Your task to perform on an android device: turn off notifications in google photos Image 0: 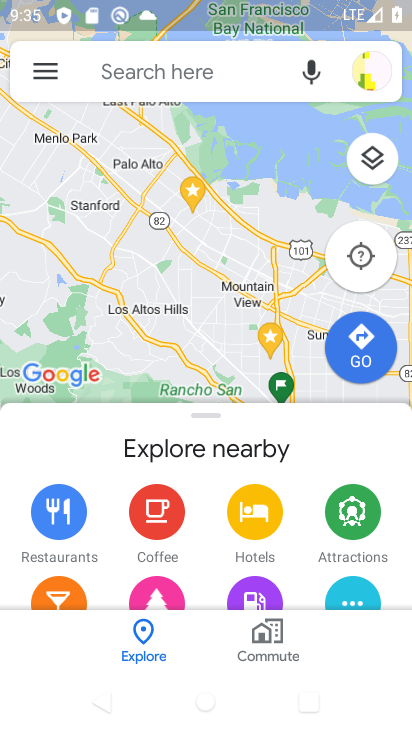
Step 0: press home button
Your task to perform on an android device: turn off notifications in google photos Image 1: 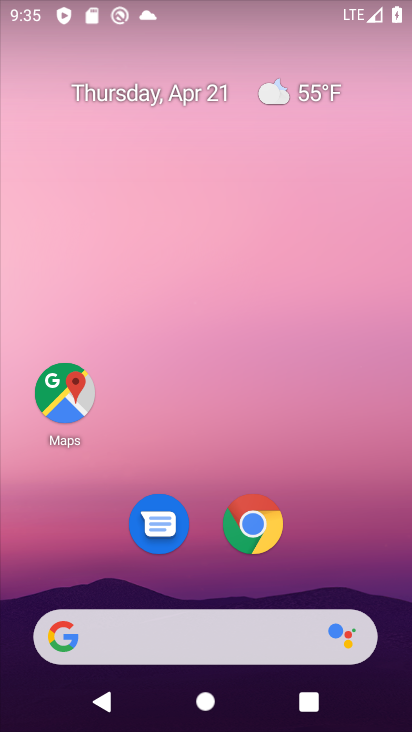
Step 1: drag from (341, 515) to (337, 106)
Your task to perform on an android device: turn off notifications in google photos Image 2: 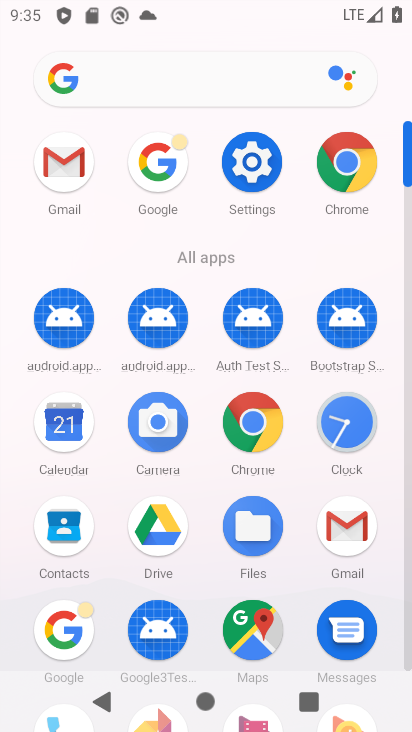
Step 2: click (253, 160)
Your task to perform on an android device: turn off notifications in google photos Image 3: 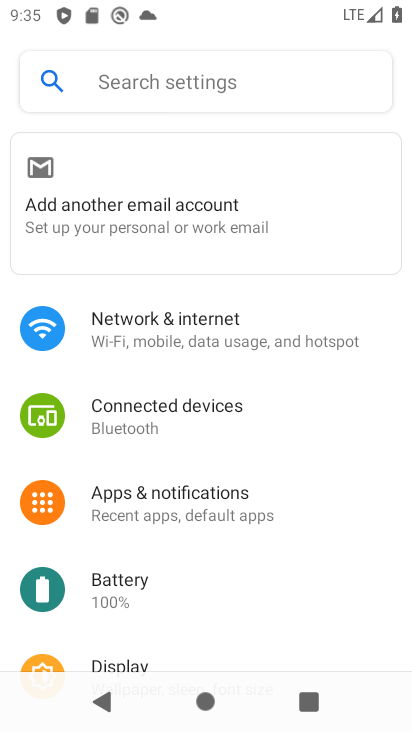
Step 3: click (222, 494)
Your task to perform on an android device: turn off notifications in google photos Image 4: 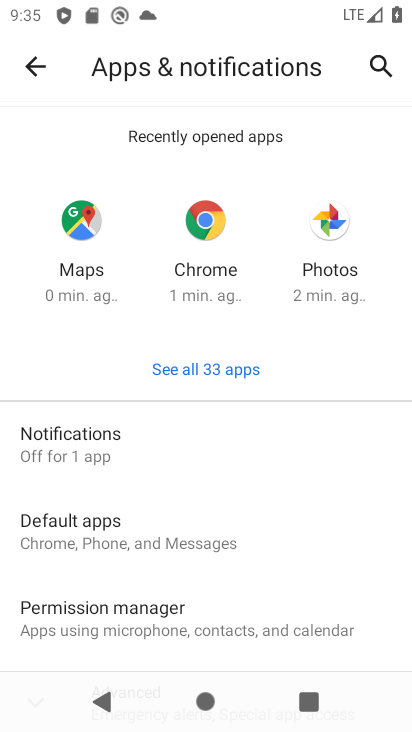
Step 4: click (331, 220)
Your task to perform on an android device: turn off notifications in google photos Image 5: 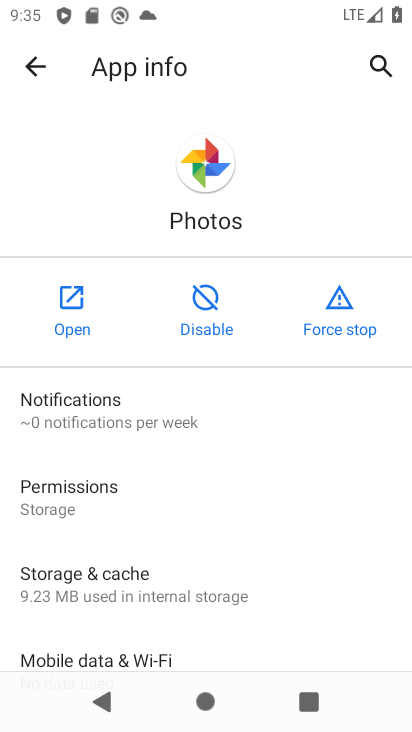
Step 5: click (219, 407)
Your task to perform on an android device: turn off notifications in google photos Image 6: 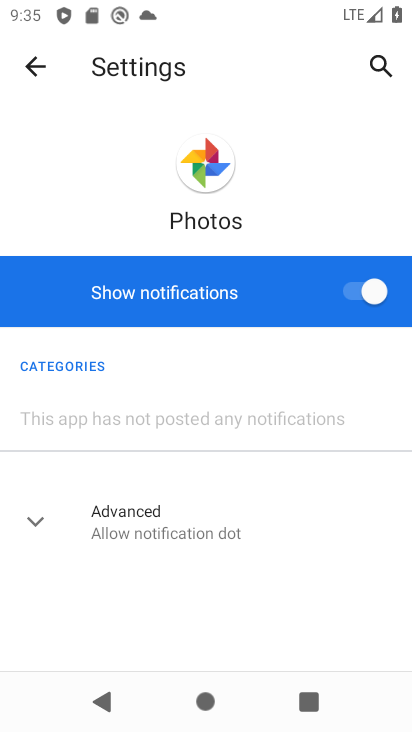
Step 6: click (348, 297)
Your task to perform on an android device: turn off notifications in google photos Image 7: 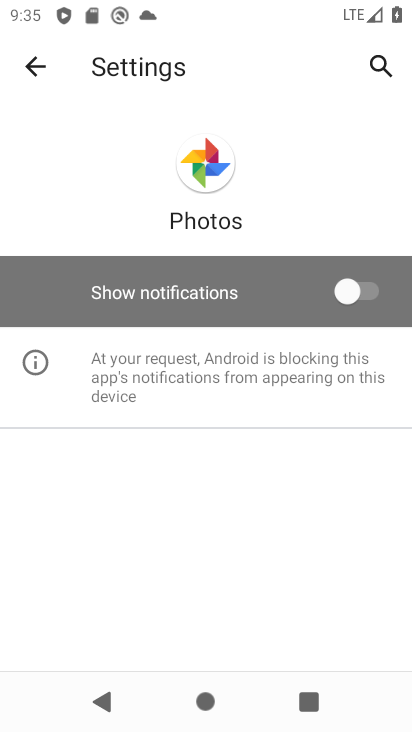
Step 7: task complete